Your task to perform on an android device: turn pop-ups off in chrome Image 0: 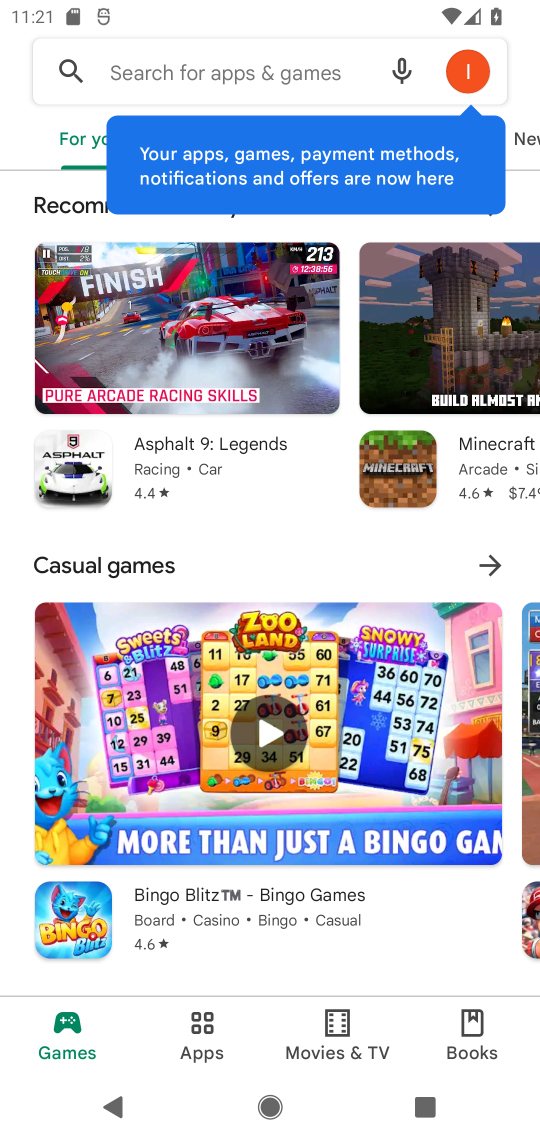
Step 0: press home button
Your task to perform on an android device: turn pop-ups off in chrome Image 1: 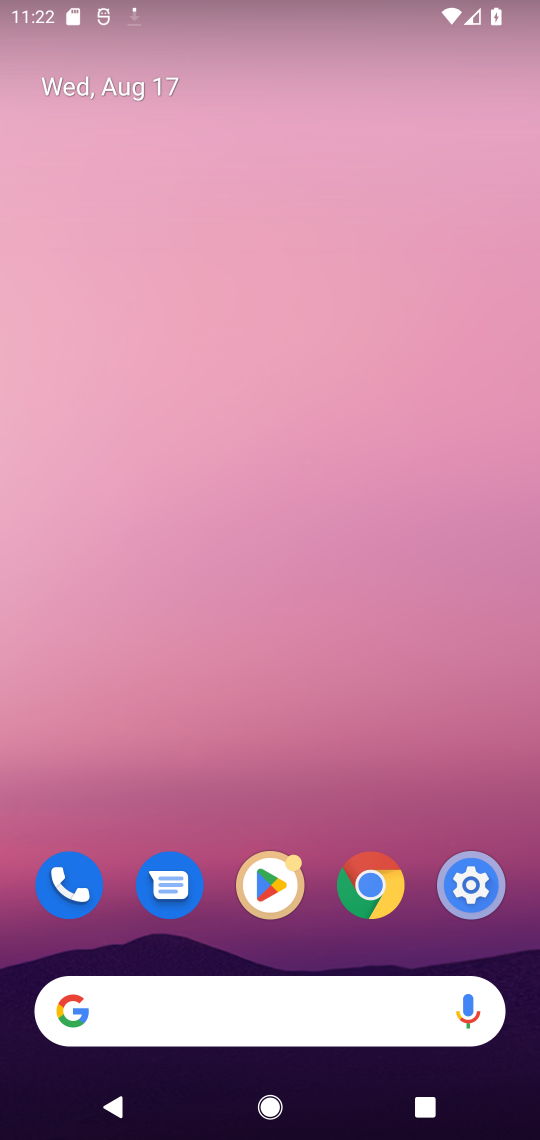
Step 1: click (376, 879)
Your task to perform on an android device: turn pop-ups off in chrome Image 2: 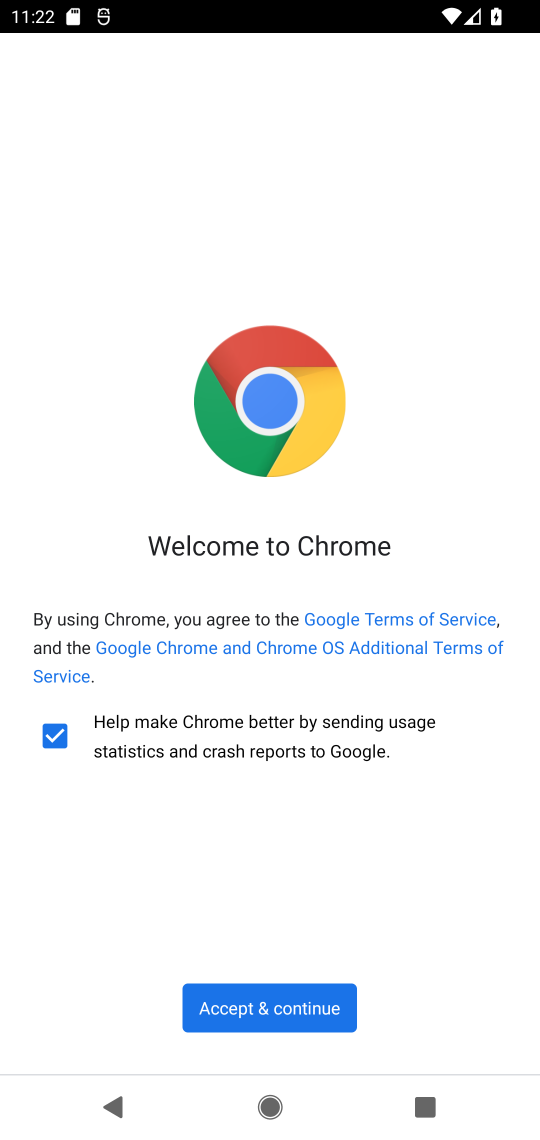
Step 2: click (250, 1008)
Your task to perform on an android device: turn pop-ups off in chrome Image 3: 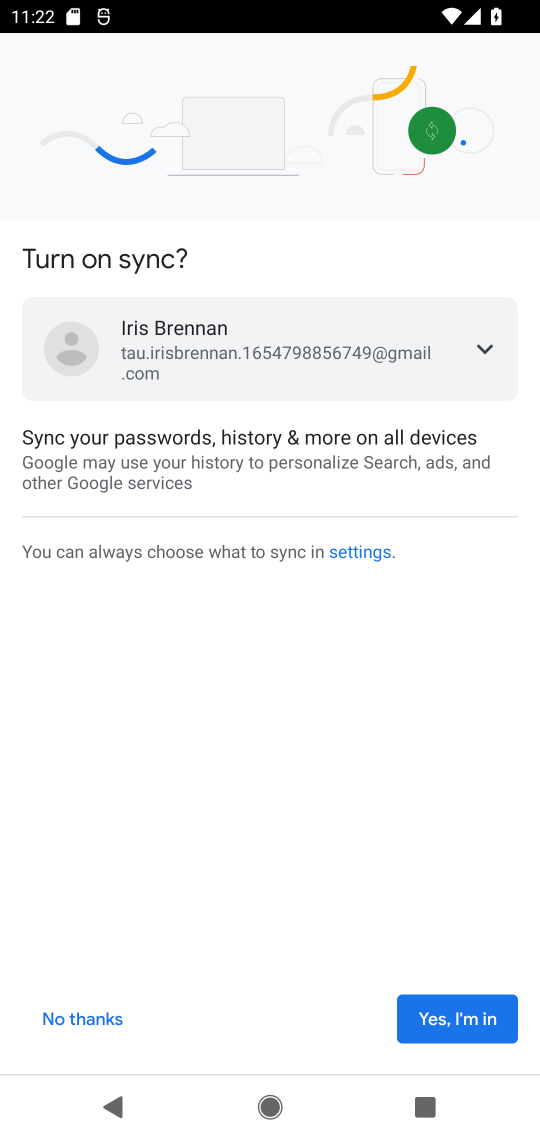
Step 3: click (458, 1010)
Your task to perform on an android device: turn pop-ups off in chrome Image 4: 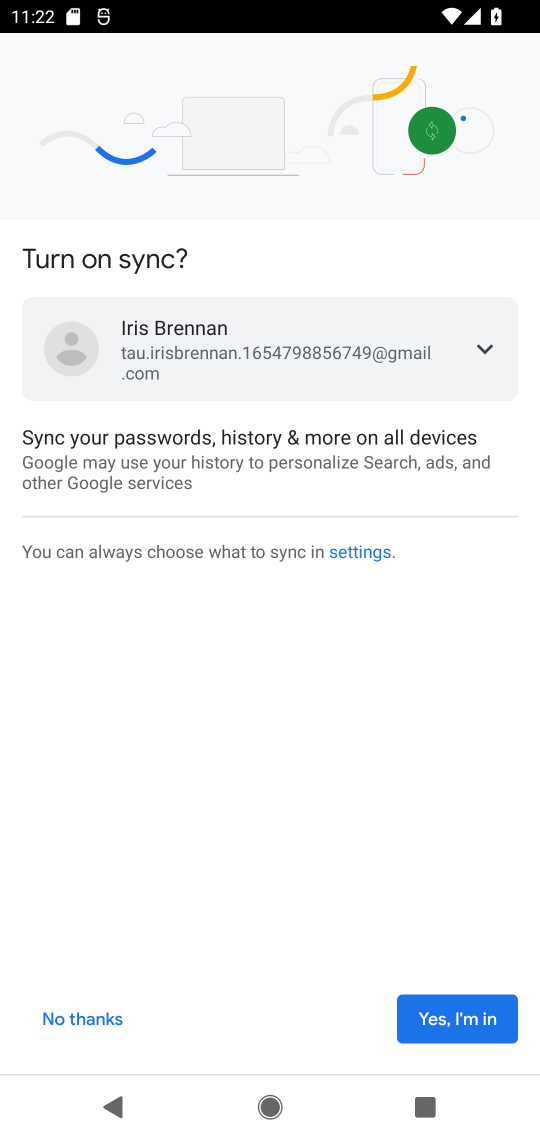
Step 4: click (458, 1010)
Your task to perform on an android device: turn pop-ups off in chrome Image 5: 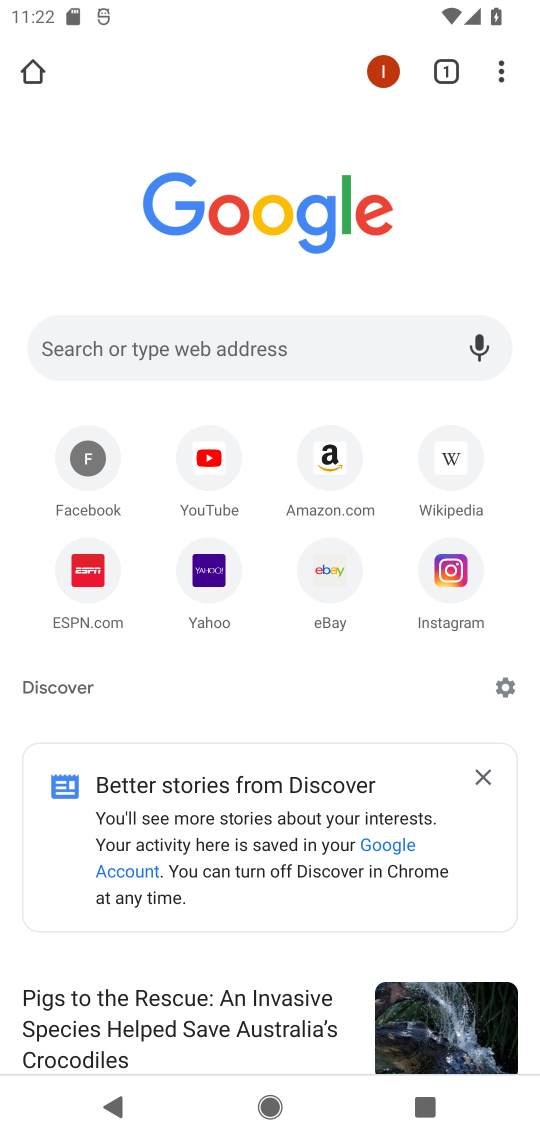
Step 5: click (500, 67)
Your task to perform on an android device: turn pop-ups off in chrome Image 6: 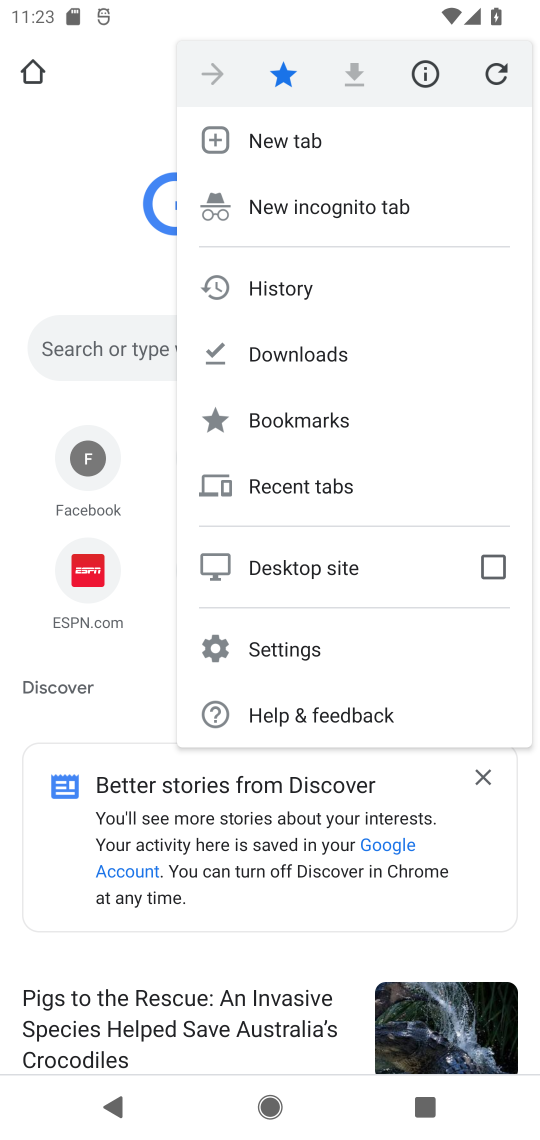
Step 6: click (342, 641)
Your task to perform on an android device: turn pop-ups off in chrome Image 7: 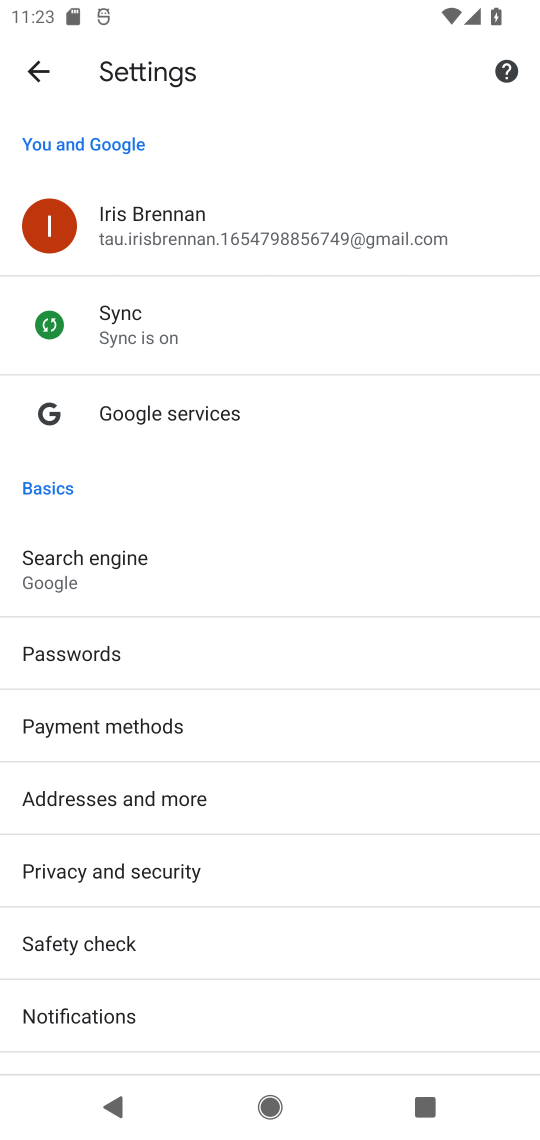
Step 7: drag from (249, 955) to (211, 657)
Your task to perform on an android device: turn pop-ups off in chrome Image 8: 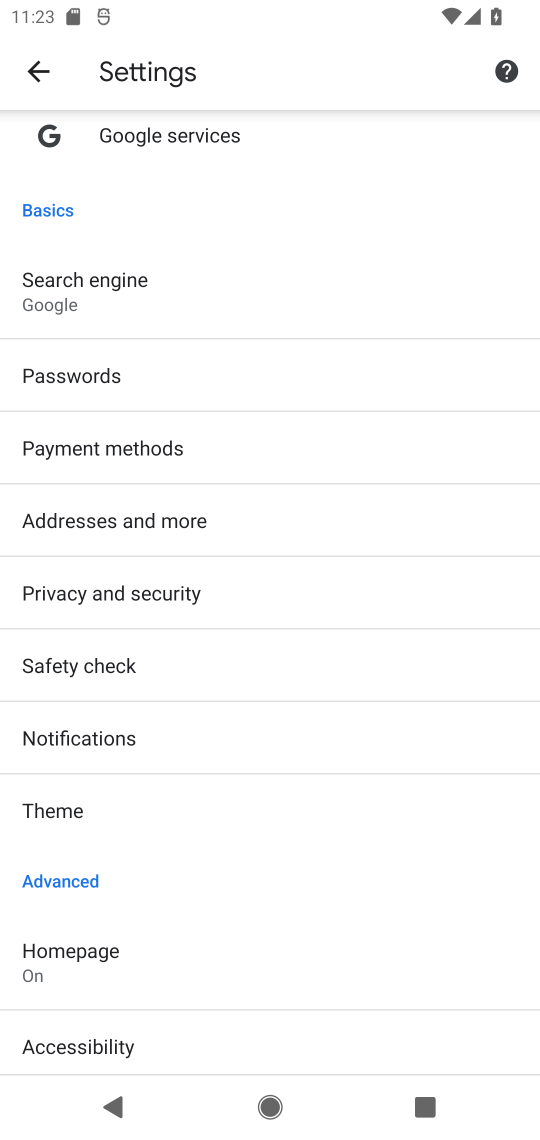
Step 8: drag from (192, 985) to (164, 604)
Your task to perform on an android device: turn pop-ups off in chrome Image 9: 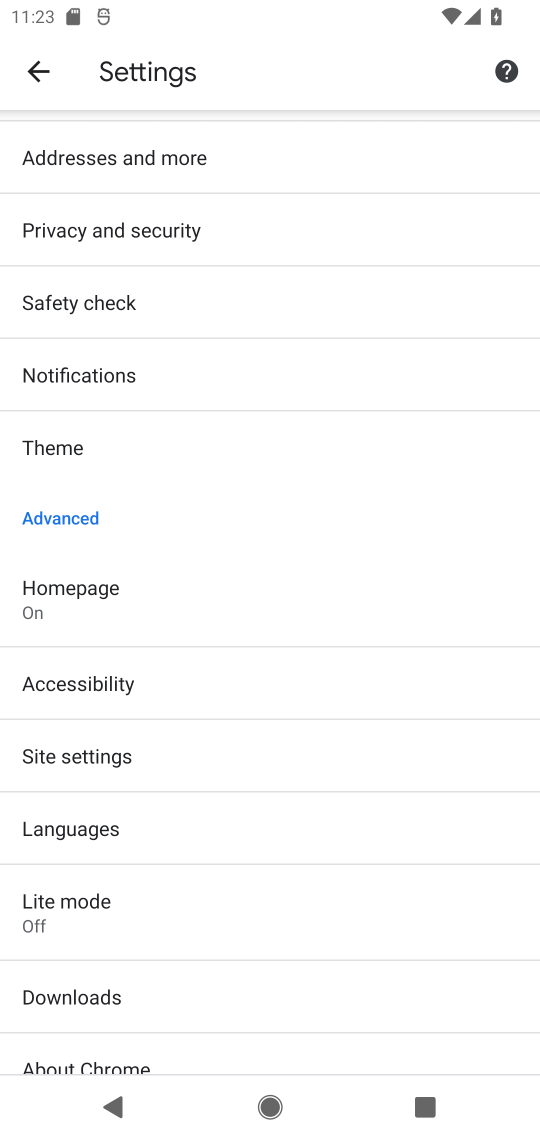
Step 9: click (96, 751)
Your task to perform on an android device: turn pop-ups off in chrome Image 10: 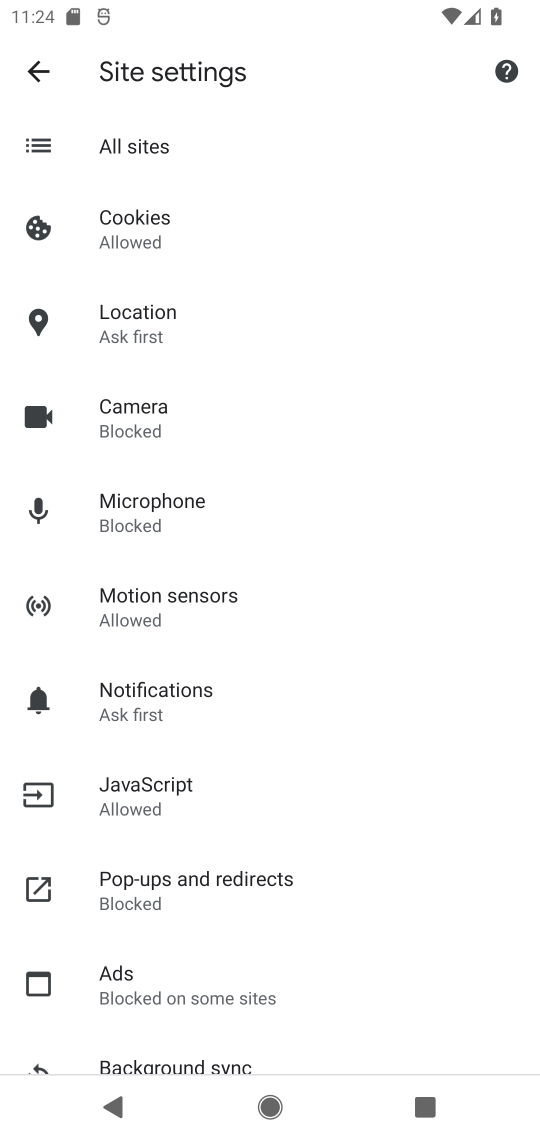
Step 10: click (198, 862)
Your task to perform on an android device: turn pop-ups off in chrome Image 11: 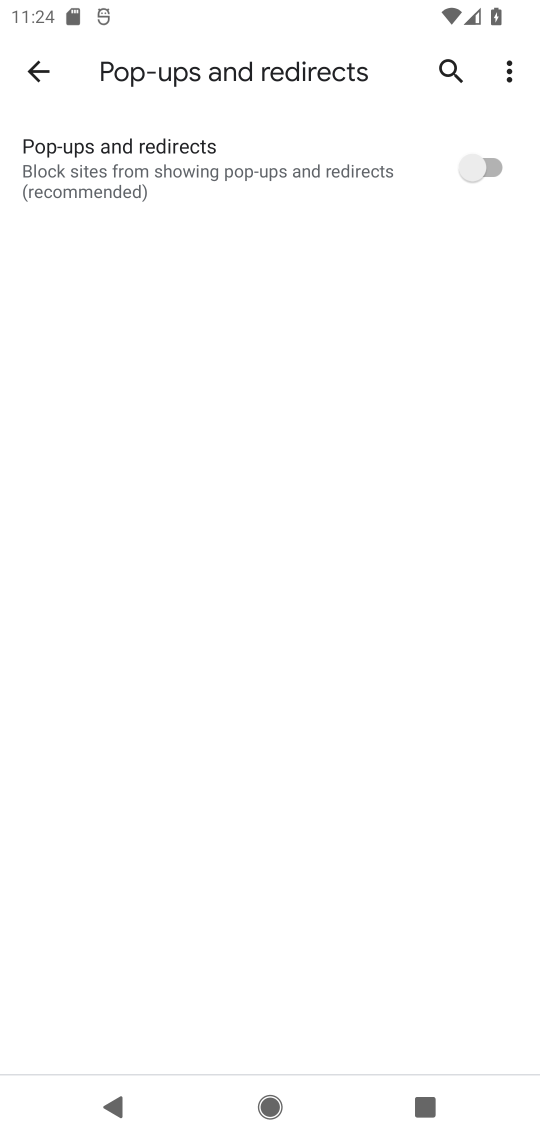
Step 11: task complete